Your task to perform on an android device: empty trash in google photos Image 0: 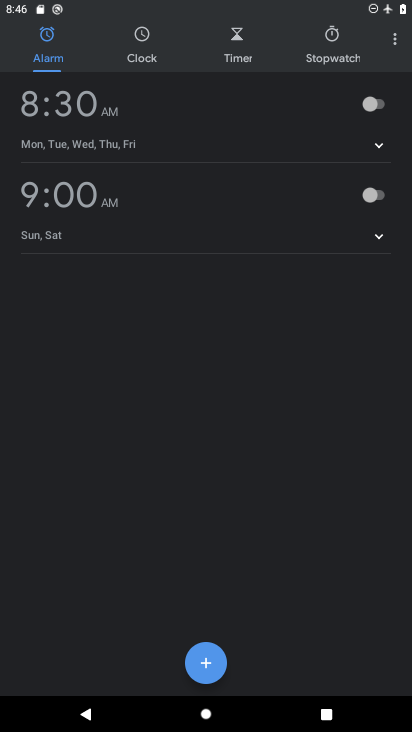
Step 0: press home button
Your task to perform on an android device: empty trash in google photos Image 1: 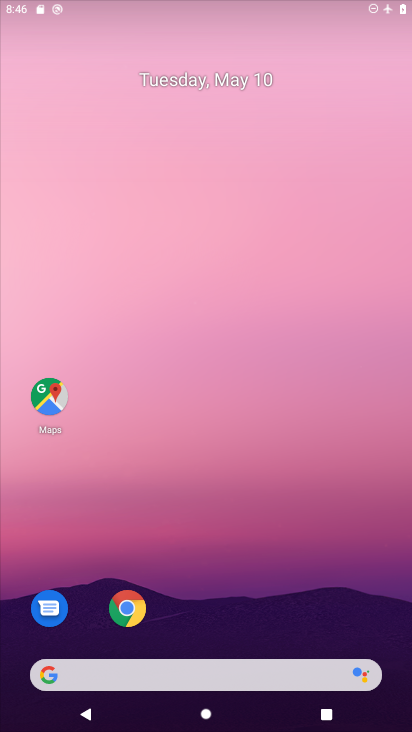
Step 1: drag from (241, 611) to (270, 257)
Your task to perform on an android device: empty trash in google photos Image 2: 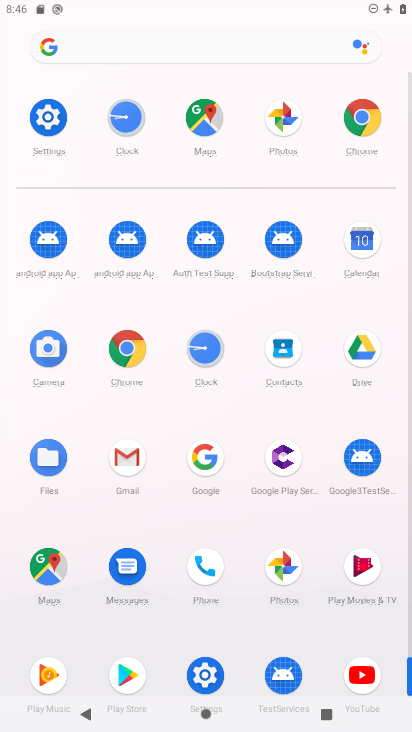
Step 2: click (274, 565)
Your task to perform on an android device: empty trash in google photos Image 3: 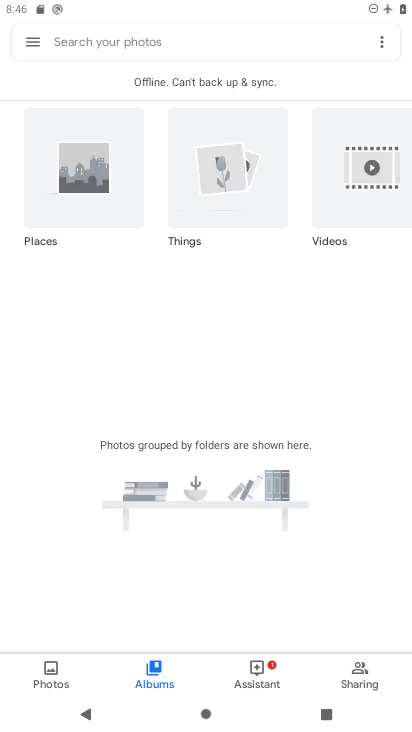
Step 3: click (34, 34)
Your task to perform on an android device: empty trash in google photos Image 4: 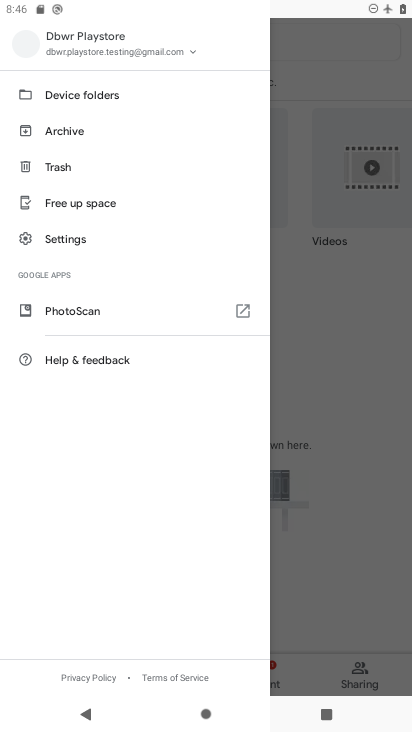
Step 4: click (56, 166)
Your task to perform on an android device: empty trash in google photos Image 5: 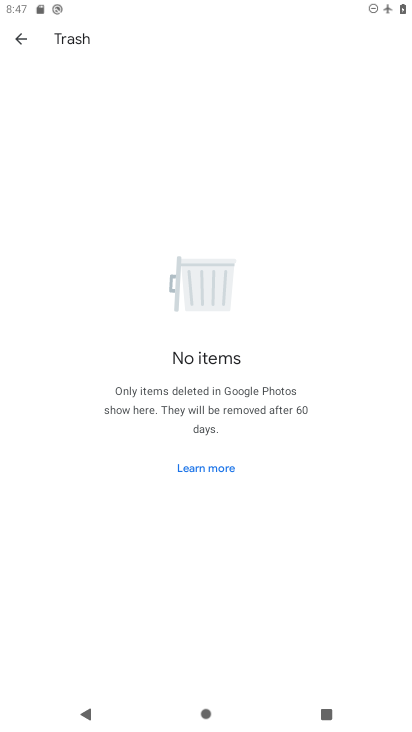
Step 5: task complete